Your task to perform on an android device: add a contact in the contacts app Image 0: 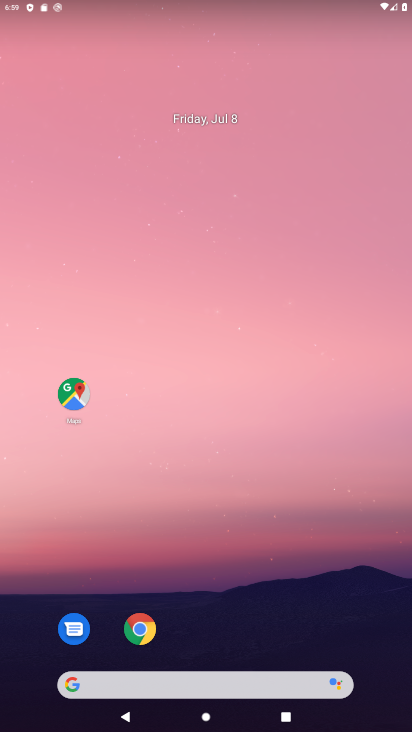
Step 0: drag from (330, 617) to (317, 43)
Your task to perform on an android device: add a contact in the contacts app Image 1: 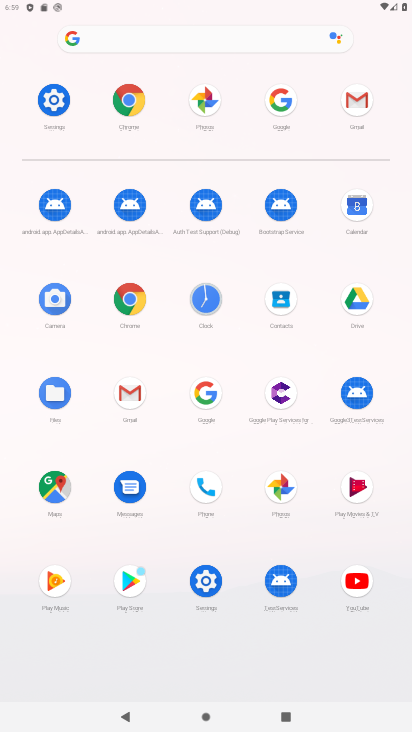
Step 1: click (277, 304)
Your task to perform on an android device: add a contact in the contacts app Image 2: 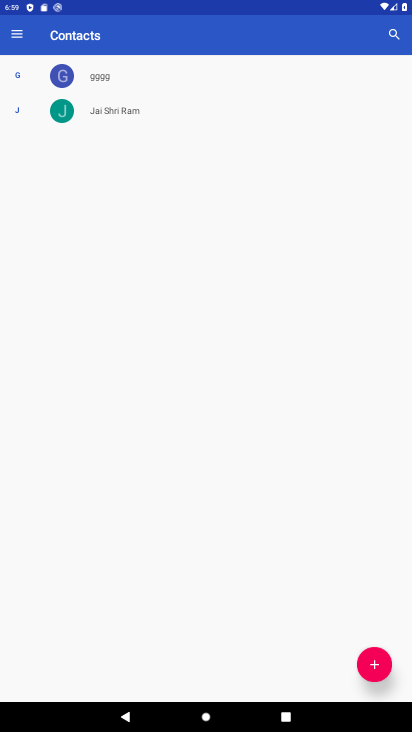
Step 2: click (370, 672)
Your task to perform on an android device: add a contact in the contacts app Image 3: 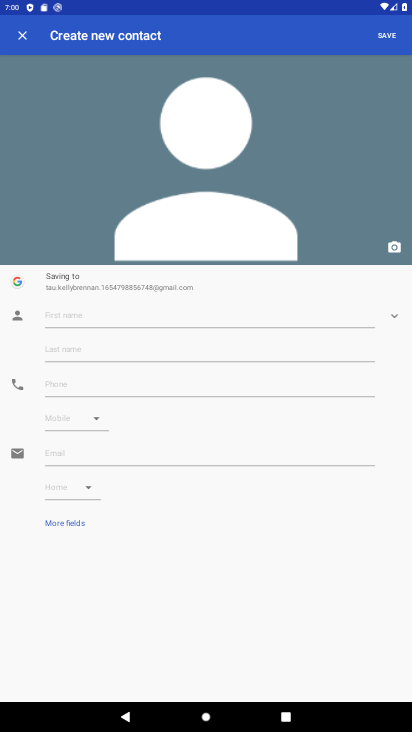
Step 3: type "meri bakkwas zindagii"
Your task to perform on an android device: add a contact in the contacts app Image 4: 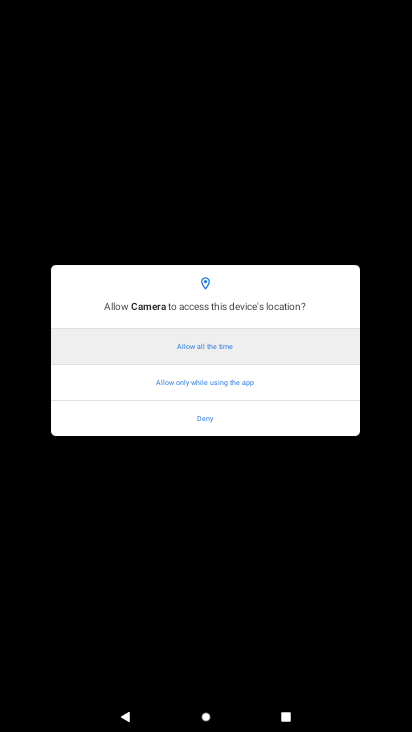
Step 4: press back button
Your task to perform on an android device: add a contact in the contacts app Image 5: 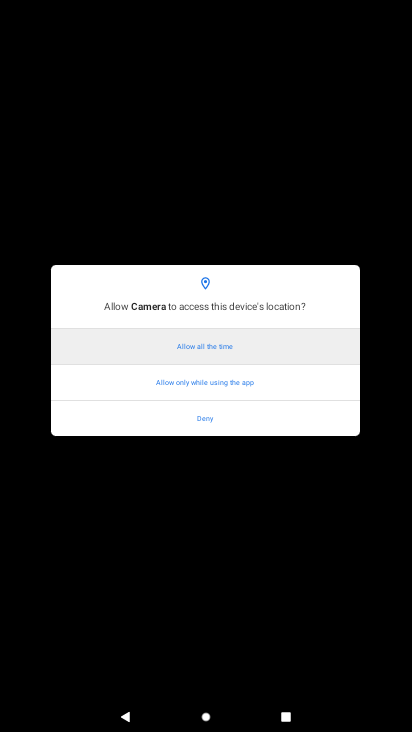
Step 5: press back button
Your task to perform on an android device: add a contact in the contacts app Image 6: 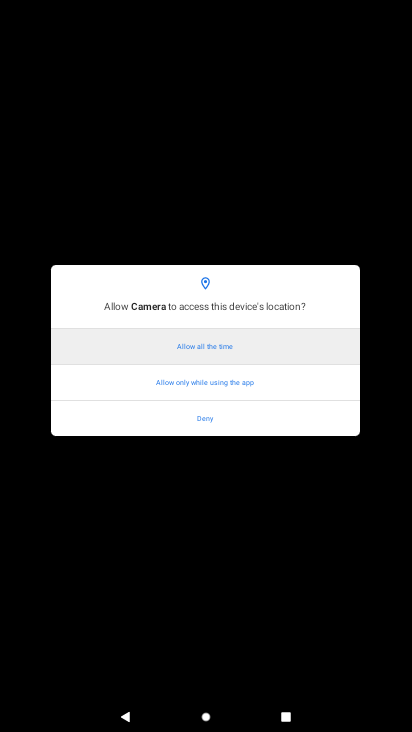
Step 6: press back button
Your task to perform on an android device: add a contact in the contacts app Image 7: 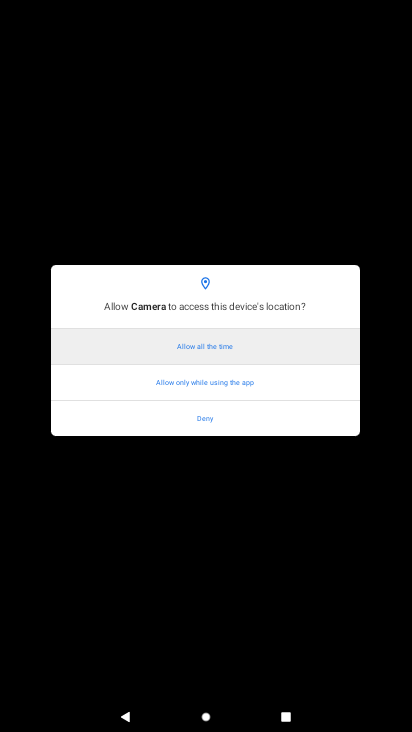
Step 7: press back button
Your task to perform on an android device: add a contact in the contacts app Image 8: 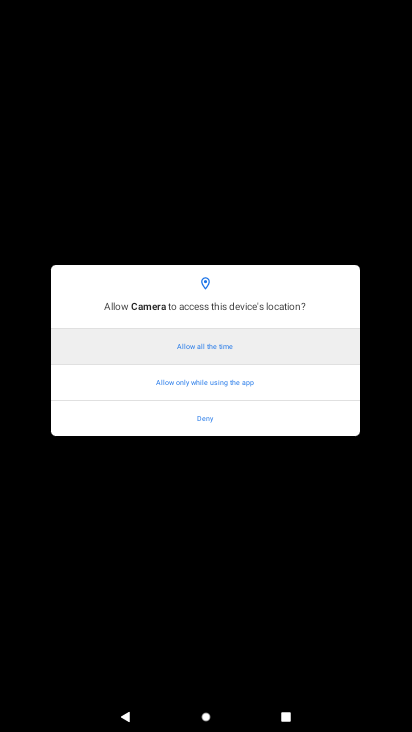
Step 8: press home button
Your task to perform on an android device: add a contact in the contacts app Image 9: 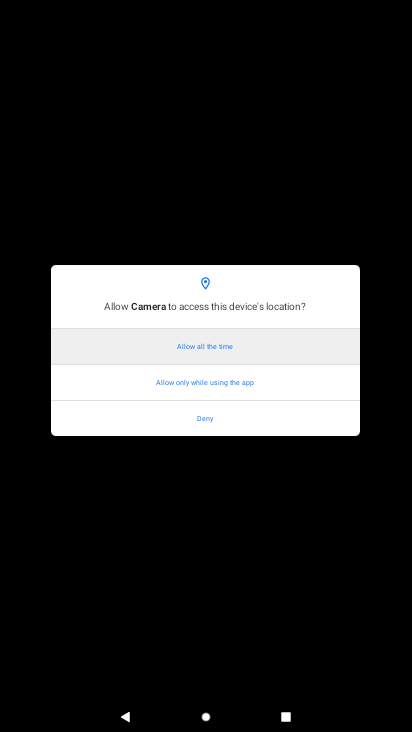
Step 9: press home button
Your task to perform on an android device: add a contact in the contacts app Image 10: 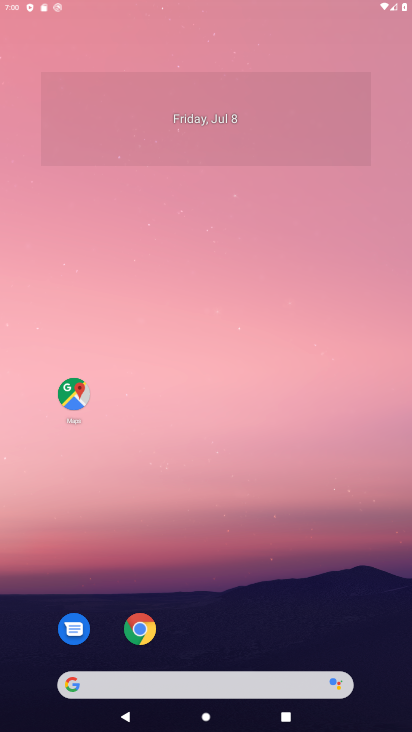
Step 10: press home button
Your task to perform on an android device: add a contact in the contacts app Image 11: 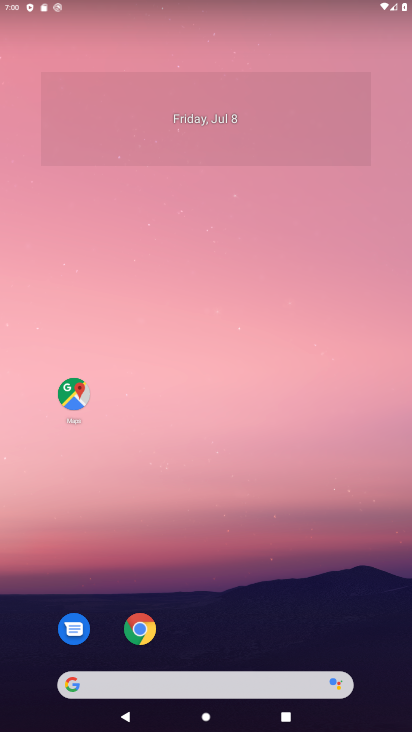
Step 11: drag from (240, 624) to (296, 1)
Your task to perform on an android device: add a contact in the contacts app Image 12: 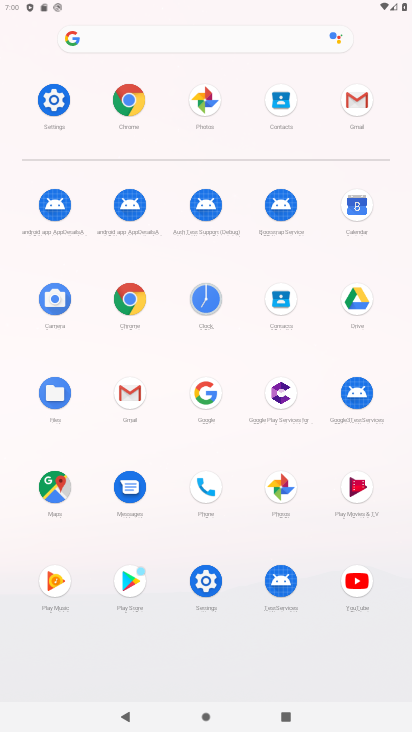
Step 12: click (280, 312)
Your task to perform on an android device: add a contact in the contacts app Image 13: 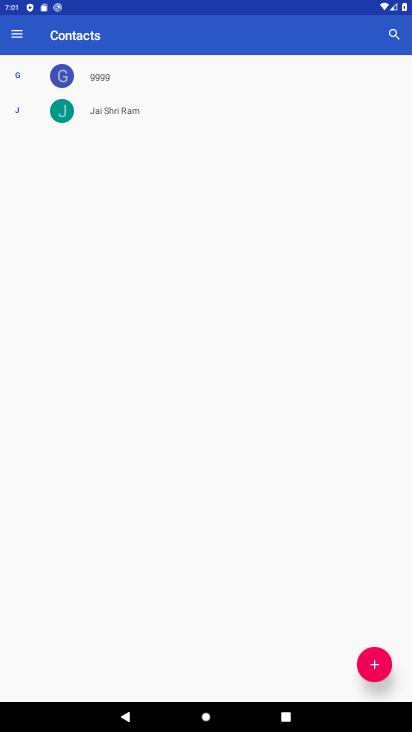
Step 13: click (385, 667)
Your task to perform on an android device: add a contact in the contacts app Image 14: 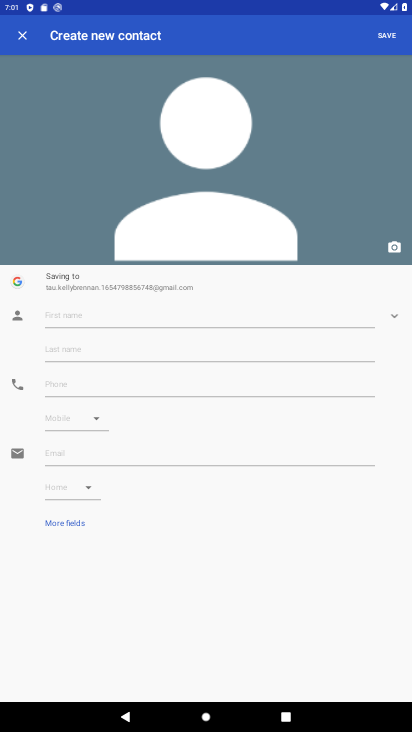
Step 14: click (217, 306)
Your task to perform on an android device: add a contact in the contacts app Image 15: 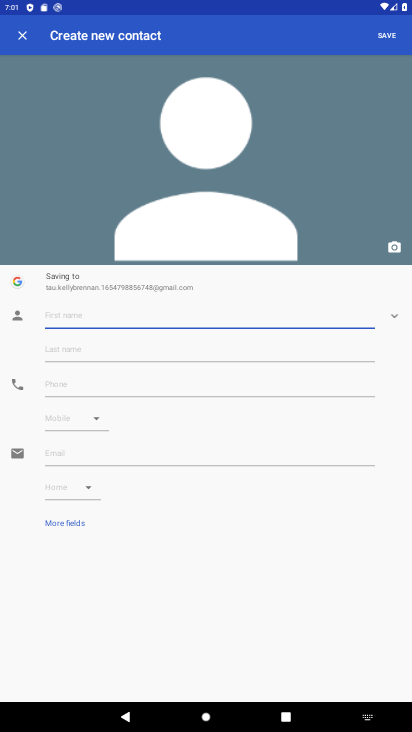
Step 15: type "jhdwh"
Your task to perform on an android device: add a contact in the contacts app Image 16: 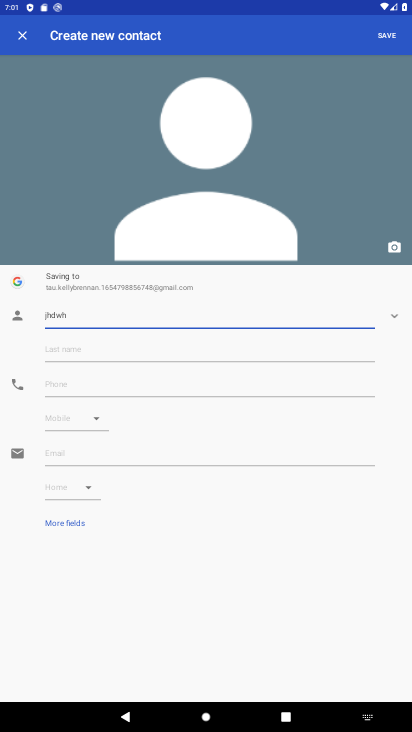
Step 16: click (81, 385)
Your task to perform on an android device: add a contact in the contacts app Image 17: 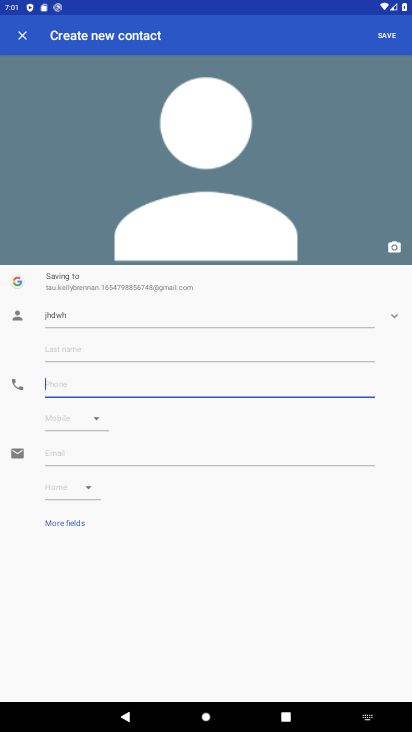
Step 17: click (81, 385)
Your task to perform on an android device: add a contact in the contacts app Image 18: 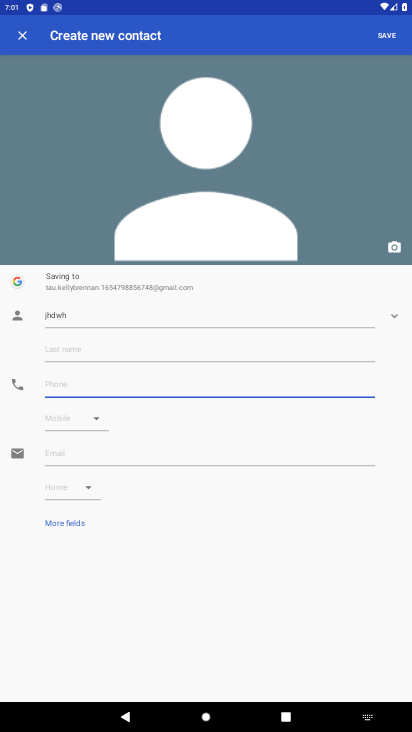
Step 18: click (81, 385)
Your task to perform on an android device: add a contact in the contacts app Image 19: 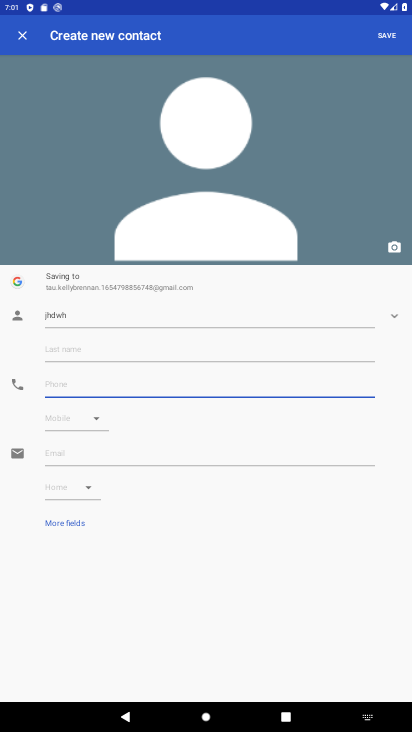
Step 19: type "87654"
Your task to perform on an android device: add a contact in the contacts app Image 20: 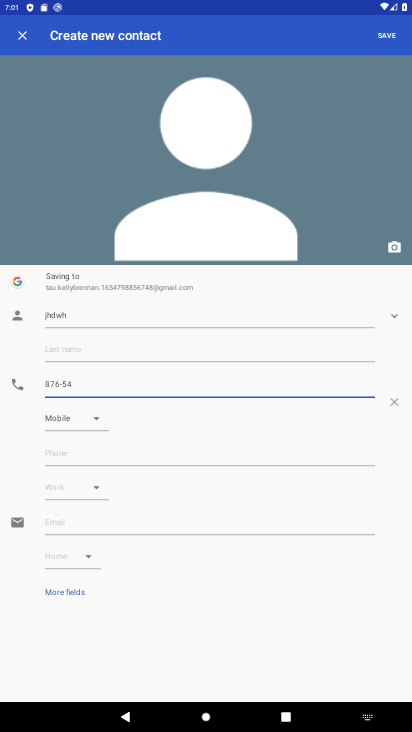
Step 20: click (385, 32)
Your task to perform on an android device: add a contact in the contacts app Image 21: 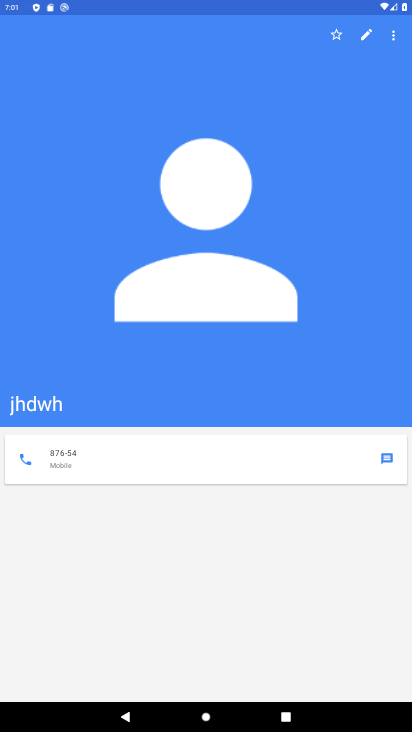
Step 21: task complete